Your task to perform on an android device: turn off airplane mode Image 0: 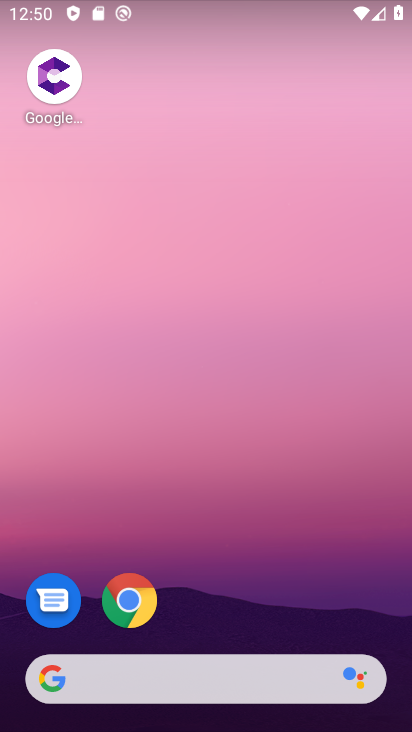
Step 0: drag from (226, 517) to (242, 37)
Your task to perform on an android device: turn off airplane mode Image 1: 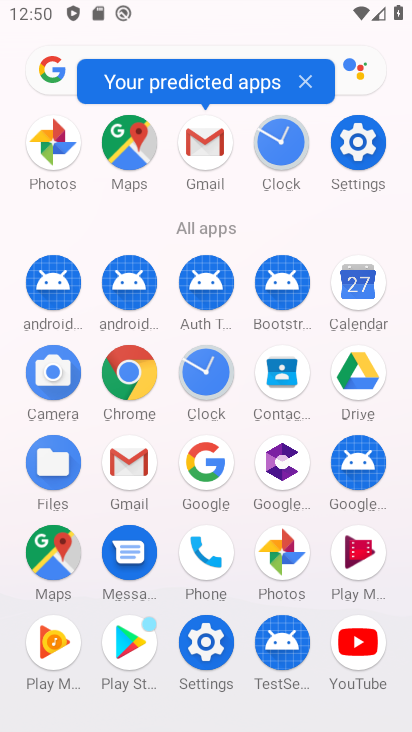
Step 1: click (357, 158)
Your task to perform on an android device: turn off airplane mode Image 2: 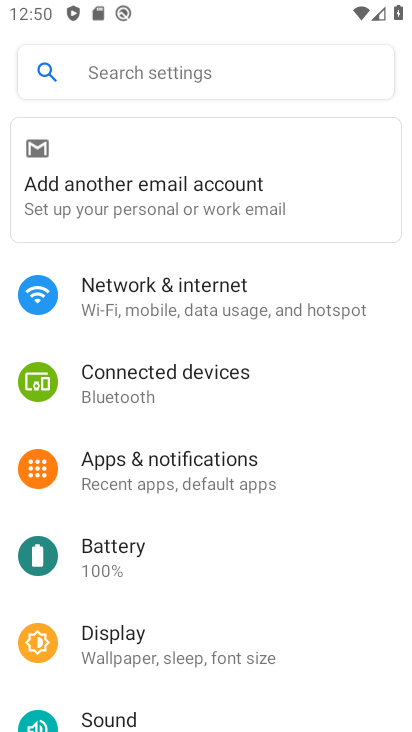
Step 2: click (252, 303)
Your task to perform on an android device: turn off airplane mode Image 3: 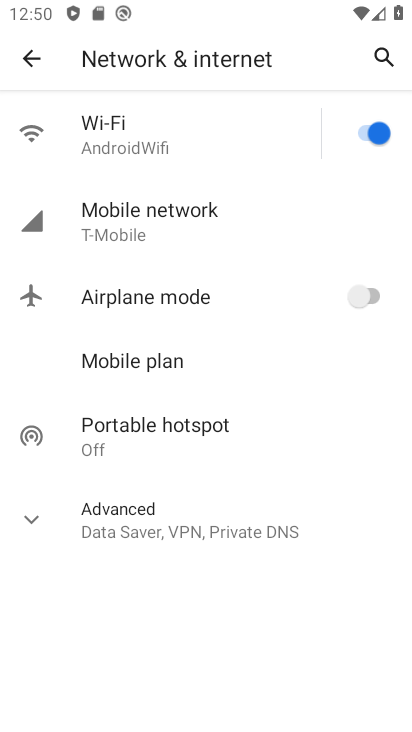
Step 3: task complete